Your task to perform on an android device: remove spam from my inbox in the gmail app Image 0: 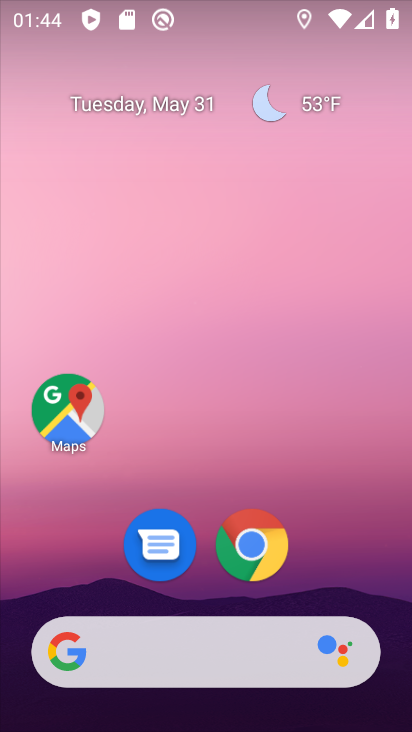
Step 0: drag from (348, 579) to (280, 22)
Your task to perform on an android device: remove spam from my inbox in the gmail app Image 1: 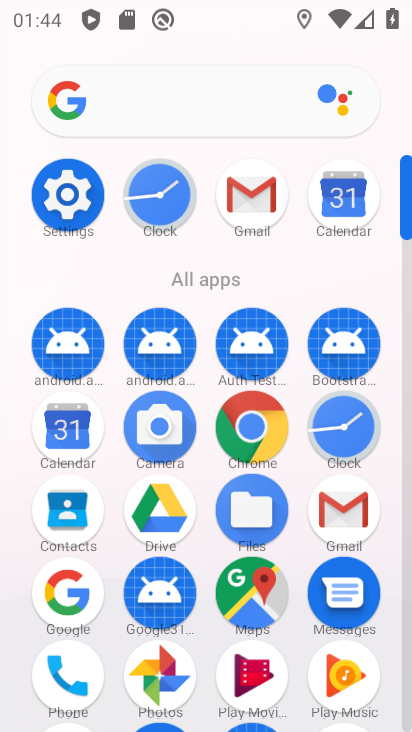
Step 1: click (331, 497)
Your task to perform on an android device: remove spam from my inbox in the gmail app Image 2: 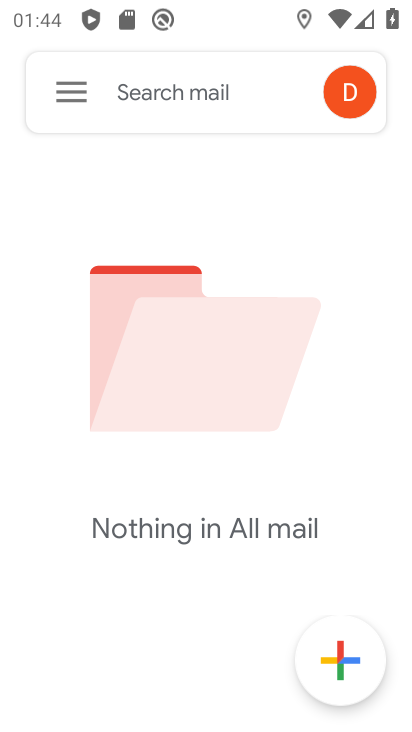
Step 2: click (69, 106)
Your task to perform on an android device: remove spam from my inbox in the gmail app Image 3: 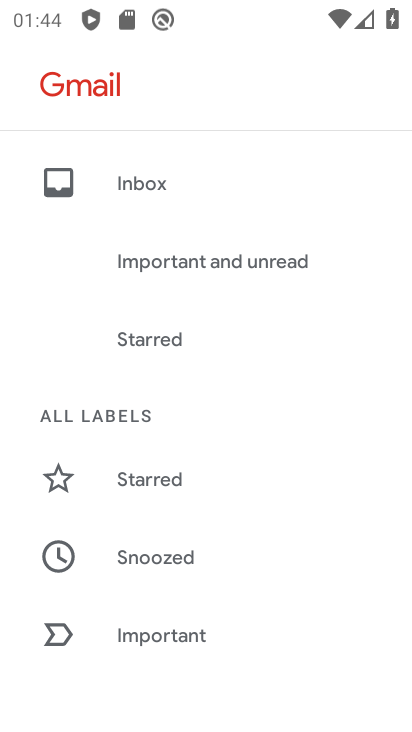
Step 3: drag from (182, 549) to (181, 189)
Your task to perform on an android device: remove spam from my inbox in the gmail app Image 4: 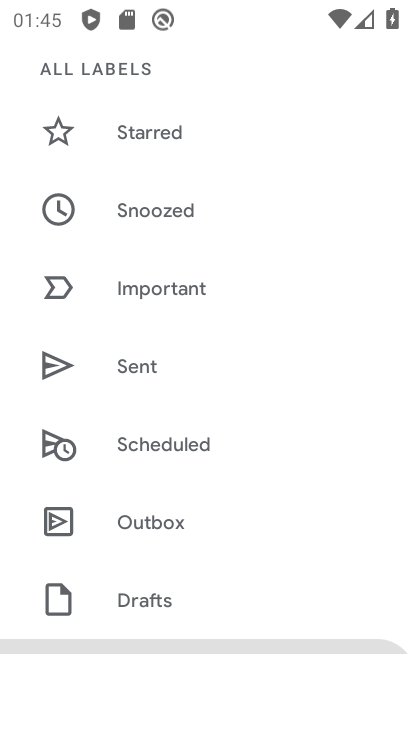
Step 4: drag from (188, 463) to (178, 298)
Your task to perform on an android device: remove spam from my inbox in the gmail app Image 5: 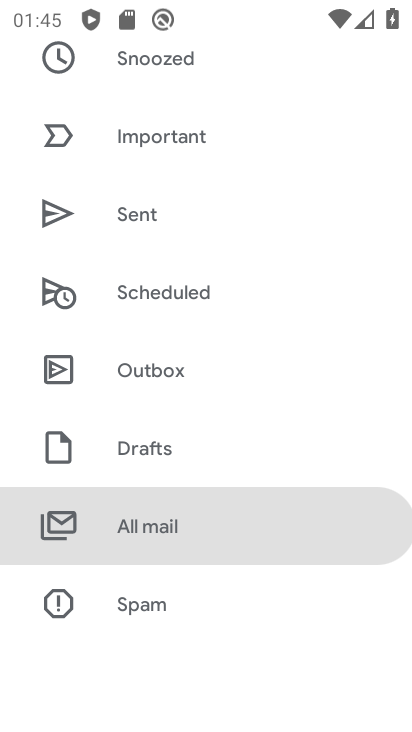
Step 5: click (144, 597)
Your task to perform on an android device: remove spam from my inbox in the gmail app Image 6: 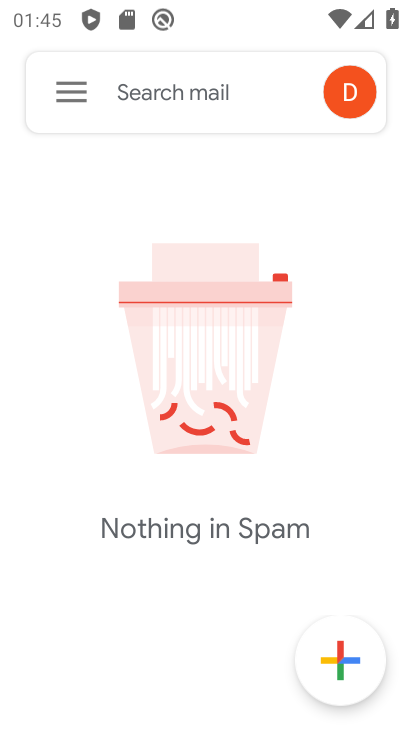
Step 6: task complete